Your task to perform on an android device: Open settings on Google Maps Image 0: 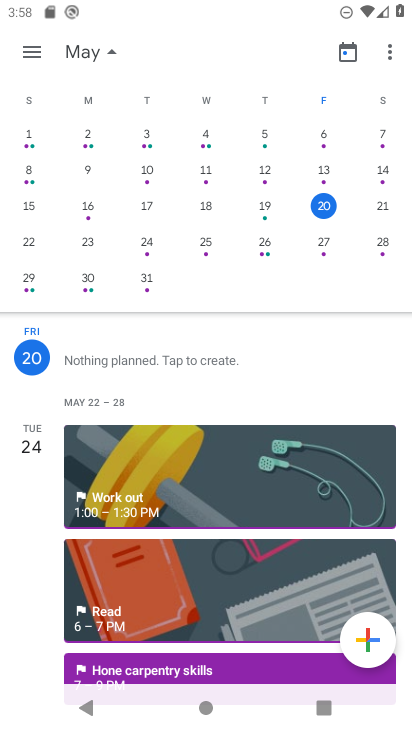
Step 0: press home button
Your task to perform on an android device: Open settings on Google Maps Image 1: 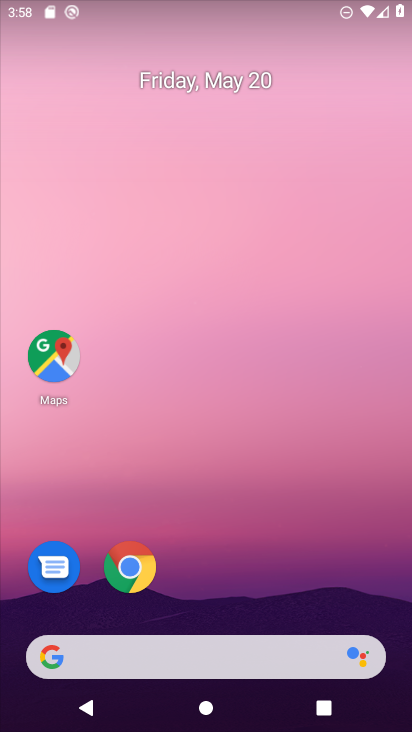
Step 1: drag from (230, 717) to (230, 81)
Your task to perform on an android device: Open settings on Google Maps Image 2: 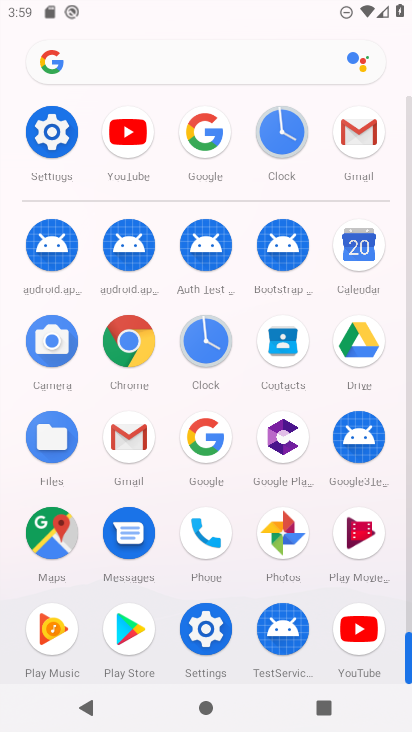
Step 2: click (54, 532)
Your task to perform on an android device: Open settings on Google Maps Image 3: 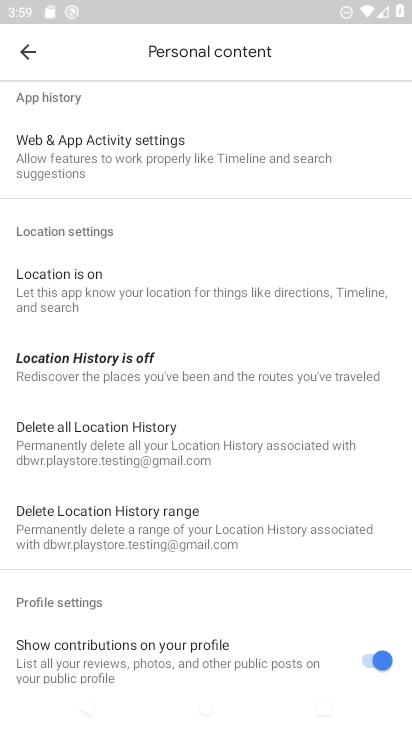
Step 3: click (29, 53)
Your task to perform on an android device: Open settings on Google Maps Image 4: 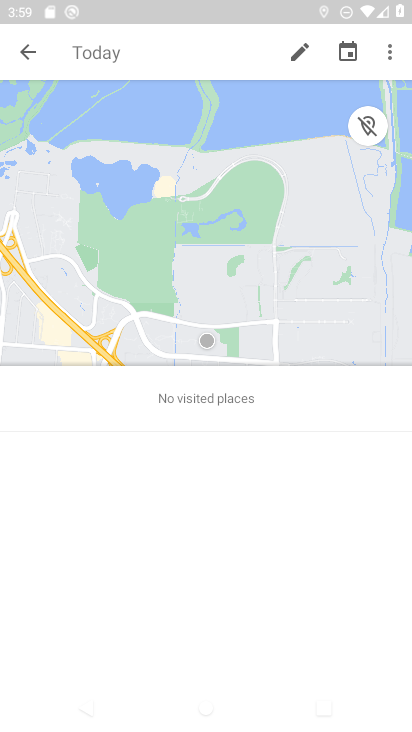
Step 4: click (24, 49)
Your task to perform on an android device: Open settings on Google Maps Image 5: 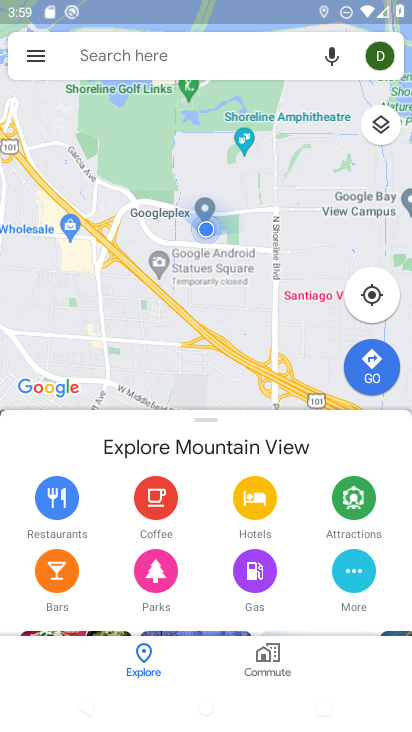
Step 5: click (37, 54)
Your task to perform on an android device: Open settings on Google Maps Image 6: 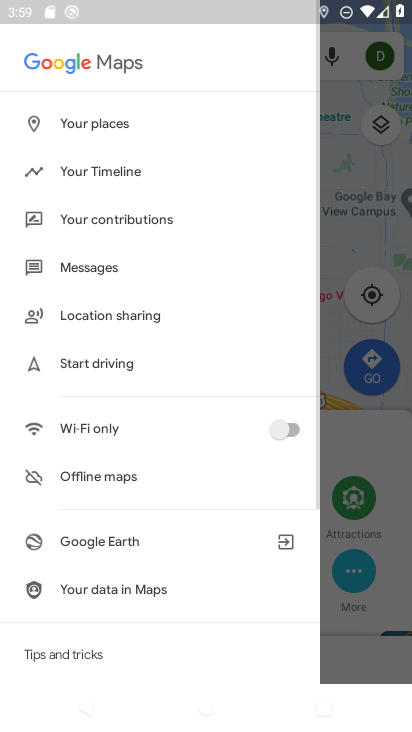
Step 6: drag from (123, 609) to (125, 156)
Your task to perform on an android device: Open settings on Google Maps Image 7: 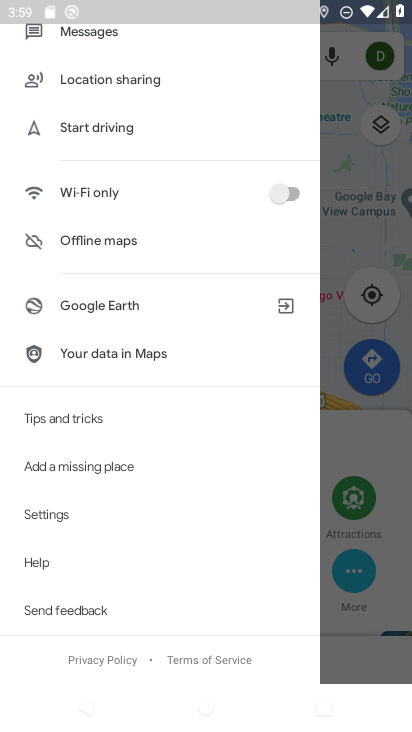
Step 7: click (54, 506)
Your task to perform on an android device: Open settings on Google Maps Image 8: 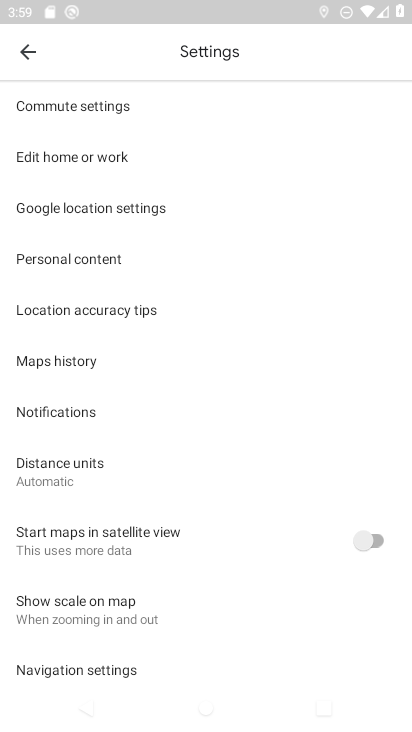
Step 8: task complete